Your task to perform on an android device: make emails show in primary in the gmail app Image 0: 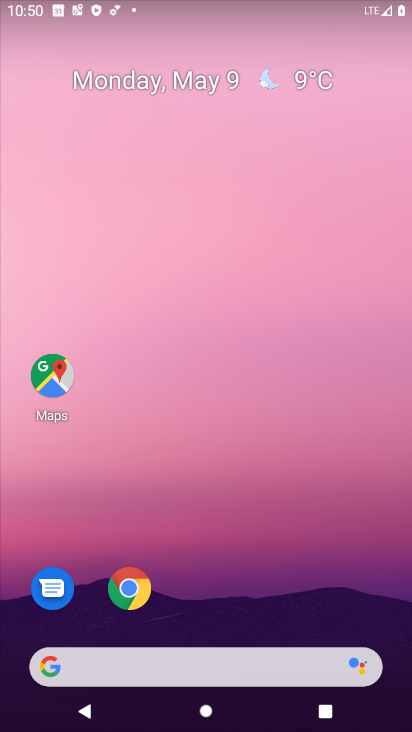
Step 0: drag from (179, 660) to (333, 53)
Your task to perform on an android device: make emails show in primary in the gmail app Image 1: 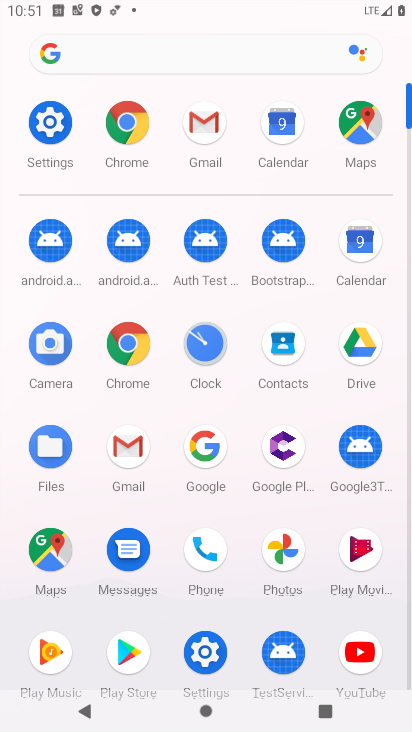
Step 1: click (198, 135)
Your task to perform on an android device: make emails show in primary in the gmail app Image 2: 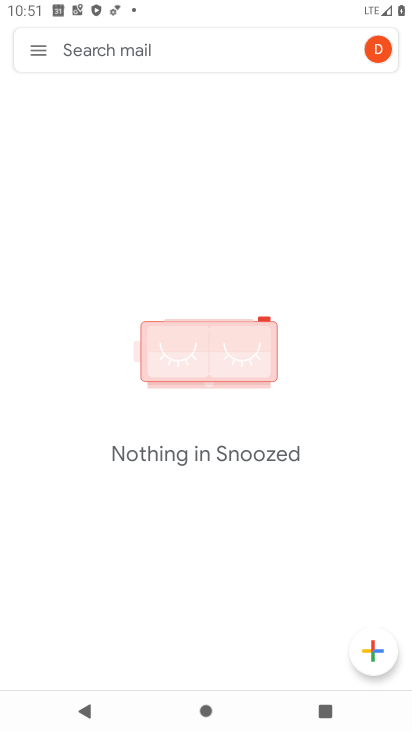
Step 2: click (30, 52)
Your task to perform on an android device: make emails show in primary in the gmail app Image 3: 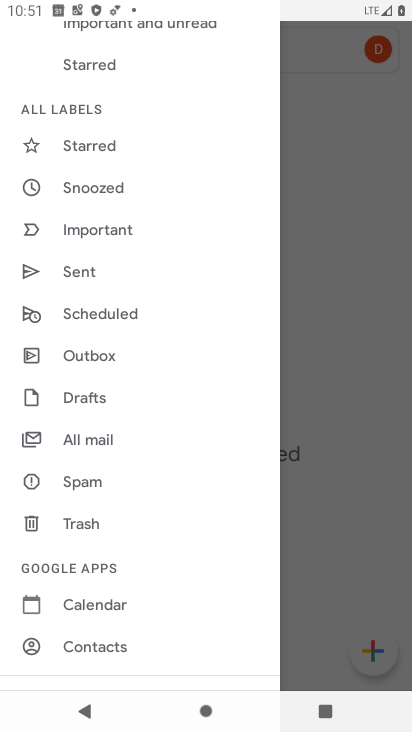
Step 3: drag from (102, 620) to (182, 201)
Your task to perform on an android device: make emails show in primary in the gmail app Image 4: 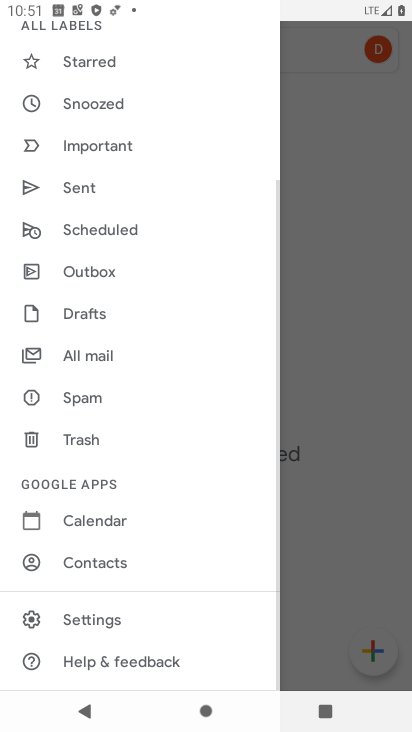
Step 4: click (93, 616)
Your task to perform on an android device: make emails show in primary in the gmail app Image 5: 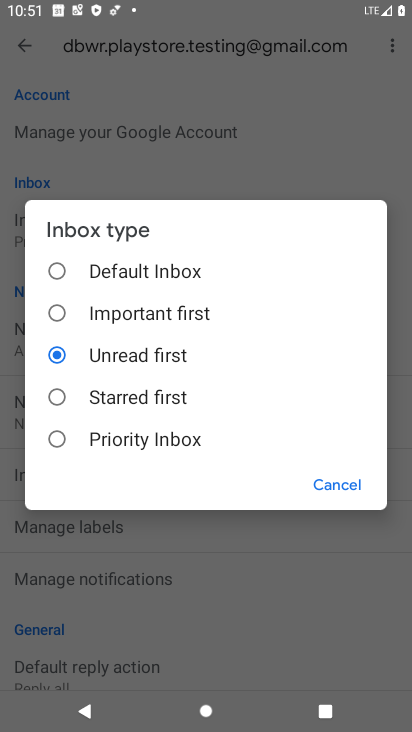
Step 5: click (323, 491)
Your task to perform on an android device: make emails show in primary in the gmail app Image 6: 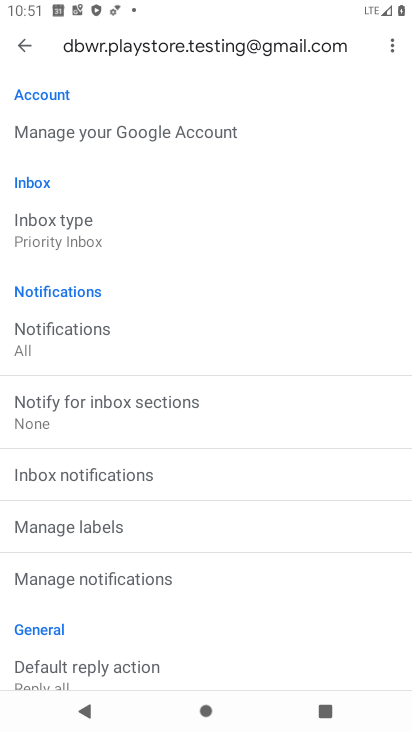
Step 6: task complete